Your task to perform on an android device: turn off improve location accuracy Image 0: 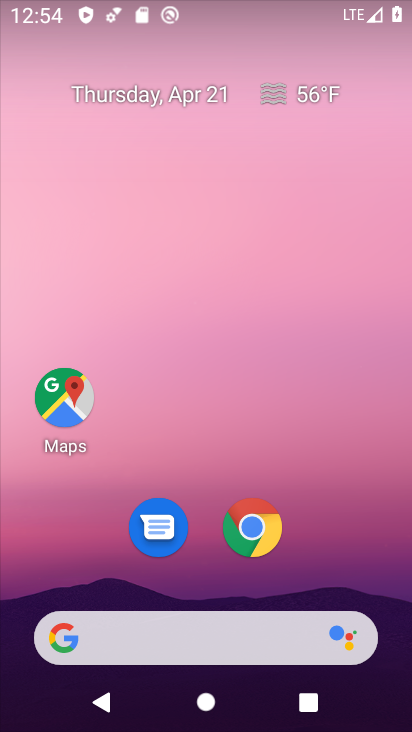
Step 0: drag from (213, 537) to (269, 79)
Your task to perform on an android device: turn off improve location accuracy Image 1: 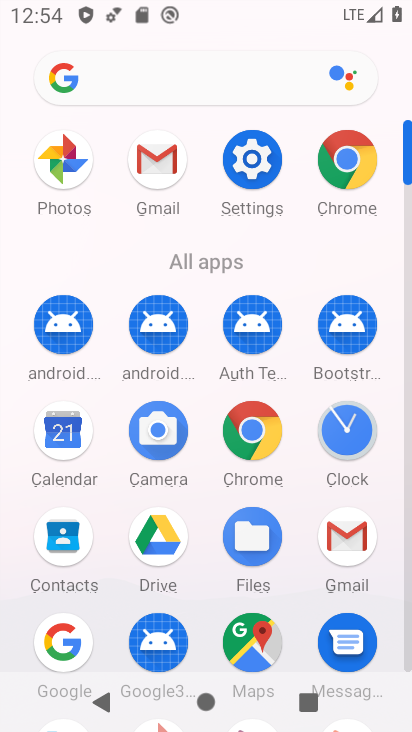
Step 1: click (245, 174)
Your task to perform on an android device: turn off improve location accuracy Image 2: 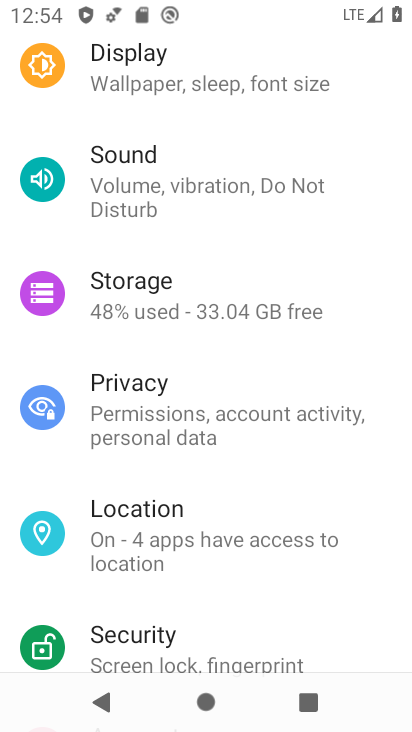
Step 2: click (179, 533)
Your task to perform on an android device: turn off improve location accuracy Image 3: 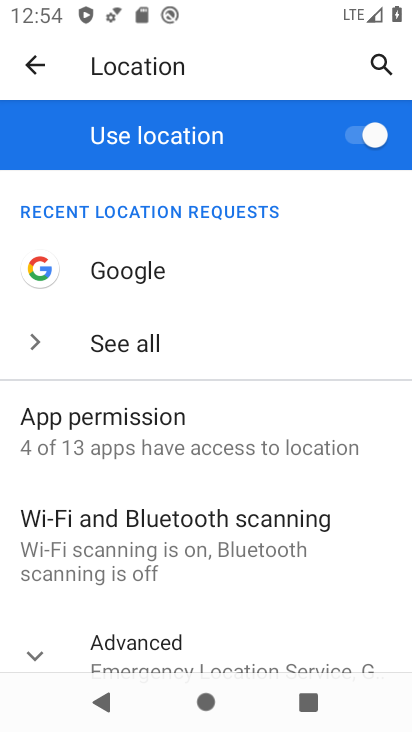
Step 3: drag from (194, 622) to (240, 328)
Your task to perform on an android device: turn off improve location accuracy Image 4: 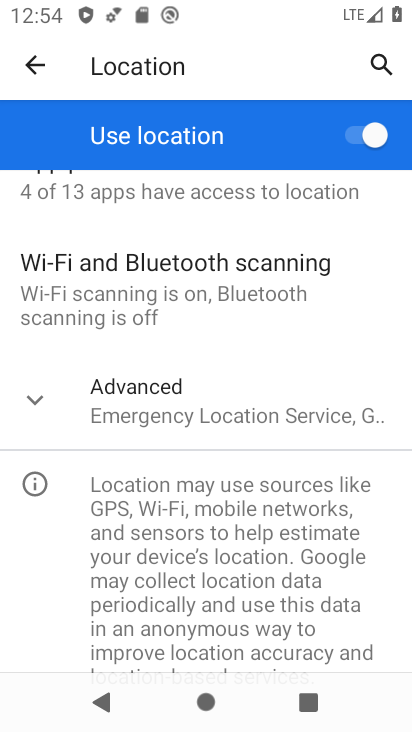
Step 4: click (167, 389)
Your task to perform on an android device: turn off improve location accuracy Image 5: 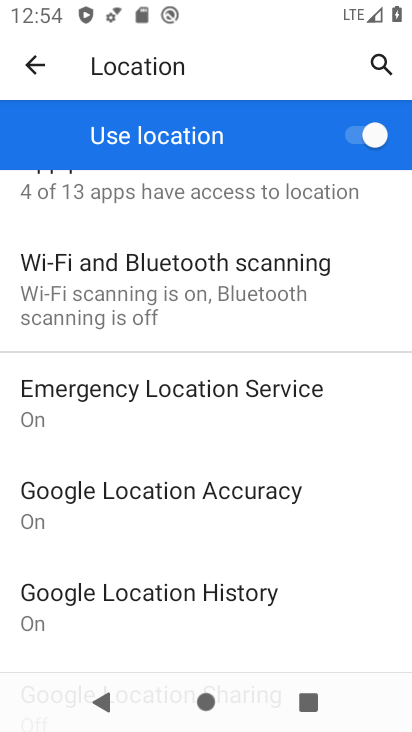
Step 5: click (165, 505)
Your task to perform on an android device: turn off improve location accuracy Image 6: 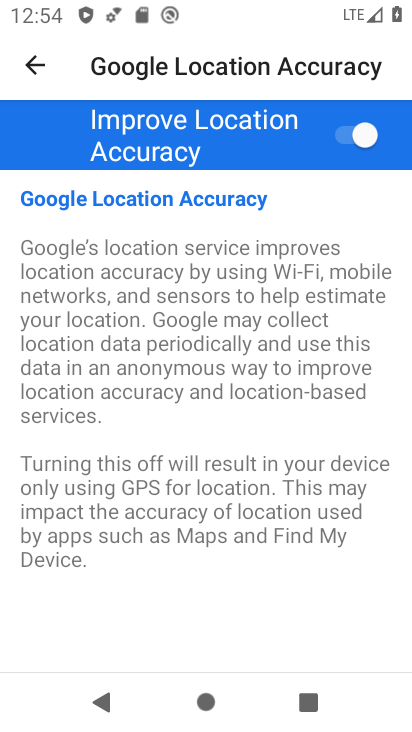
Step 6: click (368, 131)
Your task to perform on an android device: turn off improve location accuracy Image 7: 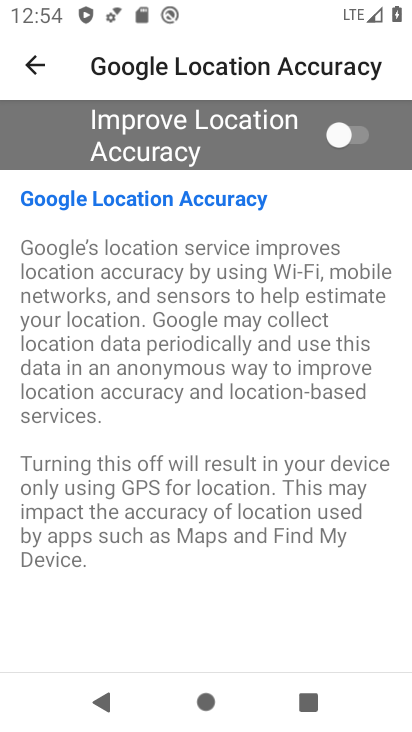
Step 7: task complete